Your task to perform on an android device: What's on my calendar tomorrow? Image 0: 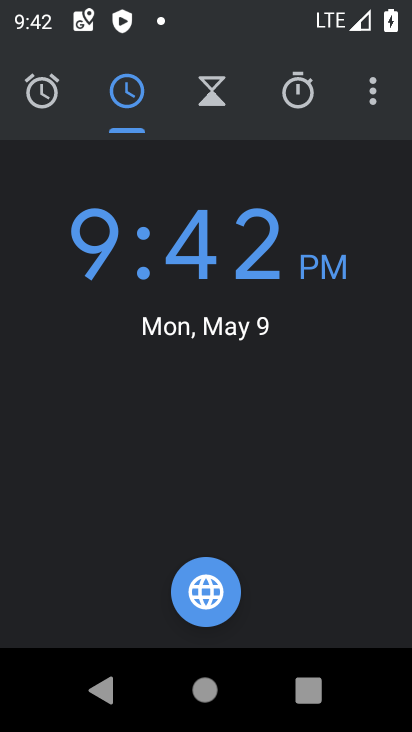
Step 0: press home button
Your task to perform on an android device: What's on my calendar tomorrow? Image 1: 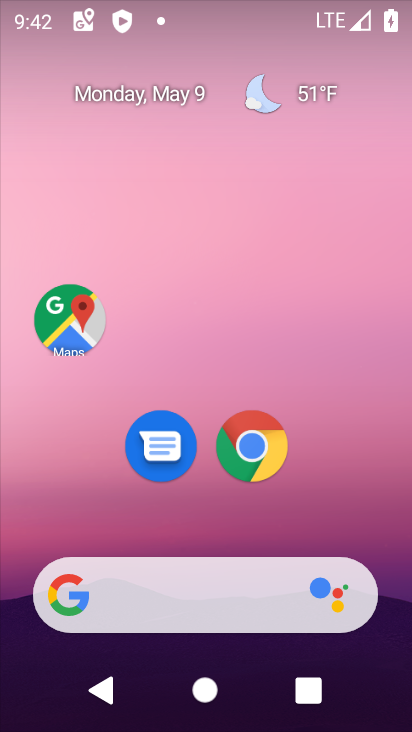
Step 1: click (143, 86)
Your task to perform on an android device: What's on my calendar tomorrow? Image 2: 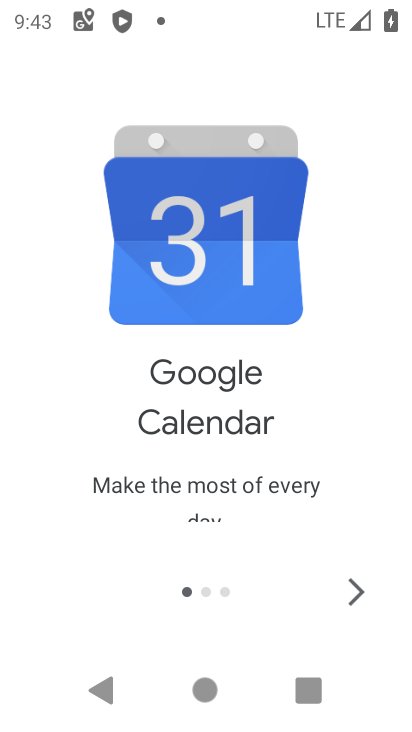
Step 2: click (364, 586)
Your task to perform on an android device: What's on my calendar tomorrow? Image 3: 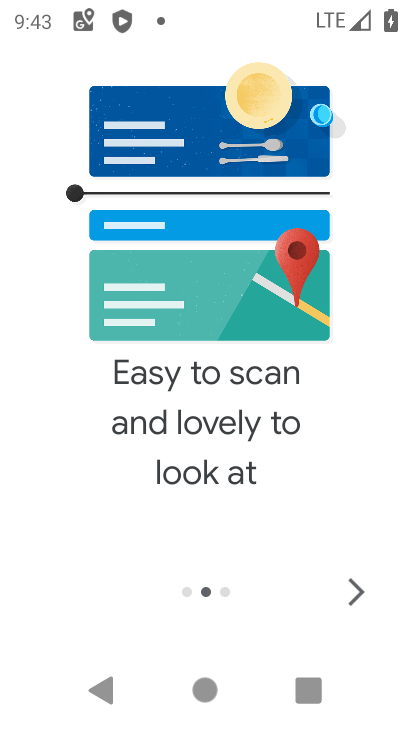
Step 3: click (360, 587)
Your task to perform on an android device: What's on my calendar tomorrow? Image 4: 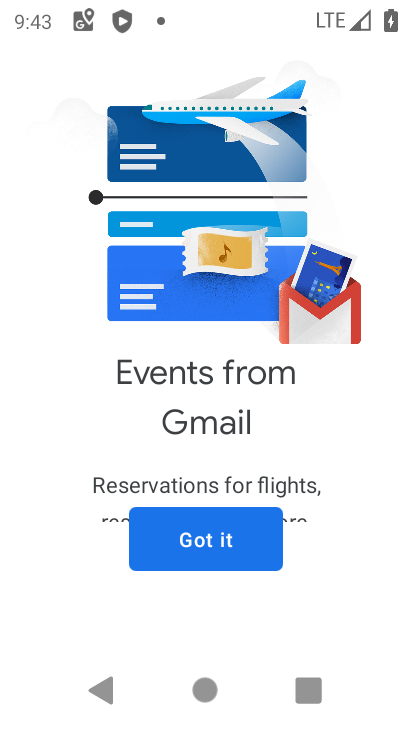
Step 4: click (243, 551)
Your task to perform on an android device: What's on my calendar tomorrow? Image 5: 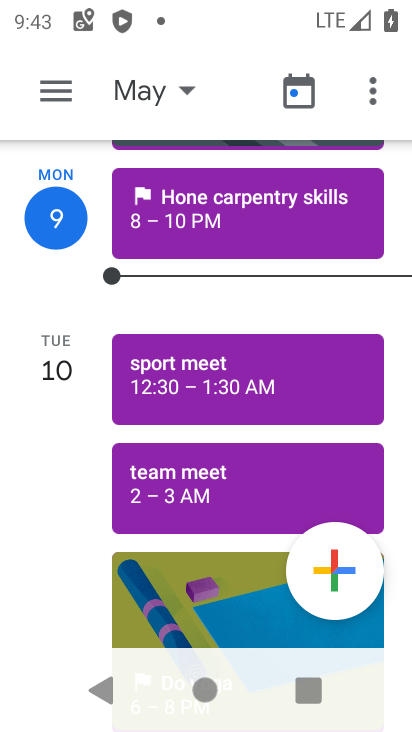
Step 5: drag from (54, 480) to (85, 162)
Your task to perform on an android device: What's on my calendar tomorrow? Image 6: 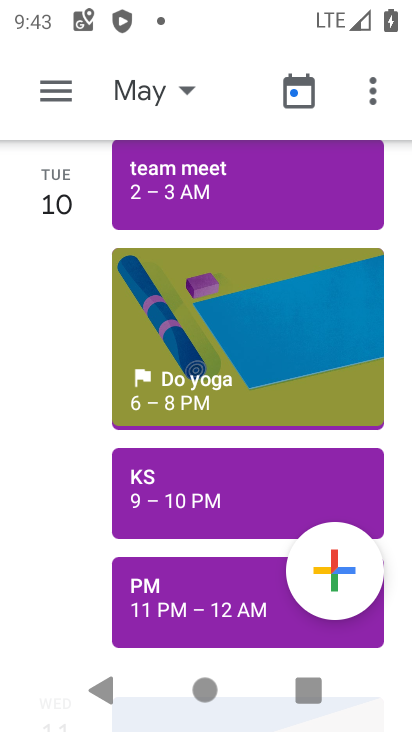
Step 6: drag from (60, 492) to (54, 226)
Your task to perform on an android device: What's on my calendar tomorrow? Image 7: 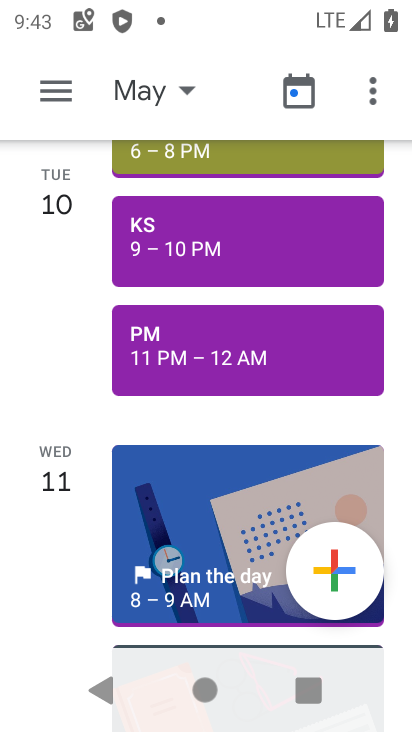
Step 7: drag from (68, 498) to (68, 140)
Your task to perform on an android device: What's on my calendar tomorrow? Image 8: 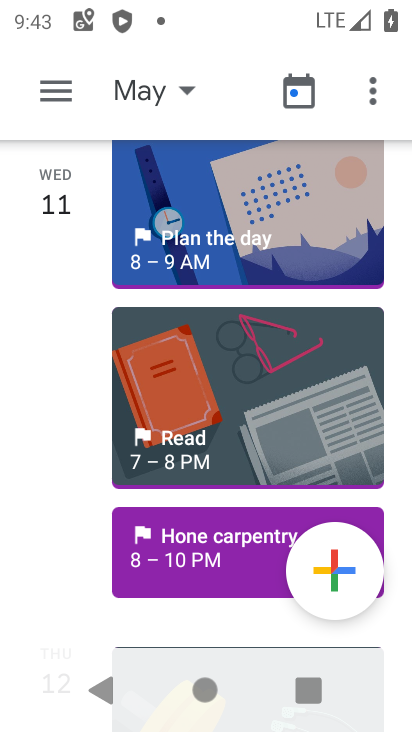
Step 8: click (70, 197)
Your task to perform on an android device: What's on my calendar tomorrow? Image 9: 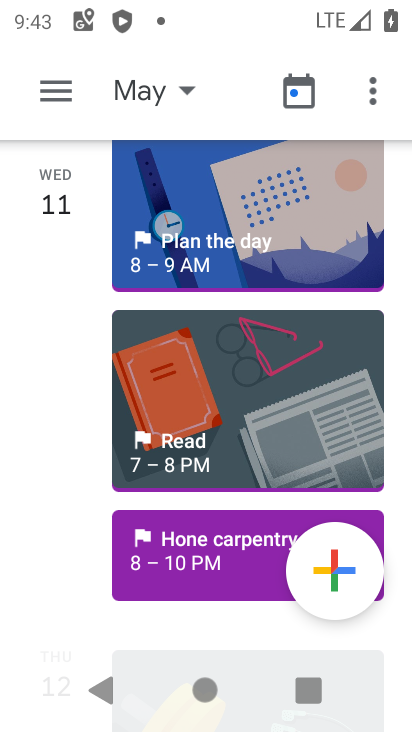
Step 9: task complete